Your task to perform on an android device: Open the calendar and show me this week's events Image 0: 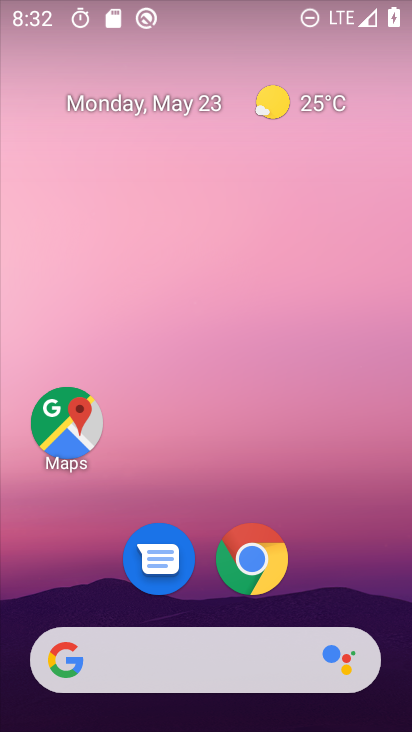
Step 0: drag from (377, 635) to (311, 4)
Your task to perform on an android device: Open the calendar and show me this week's events Image 1: 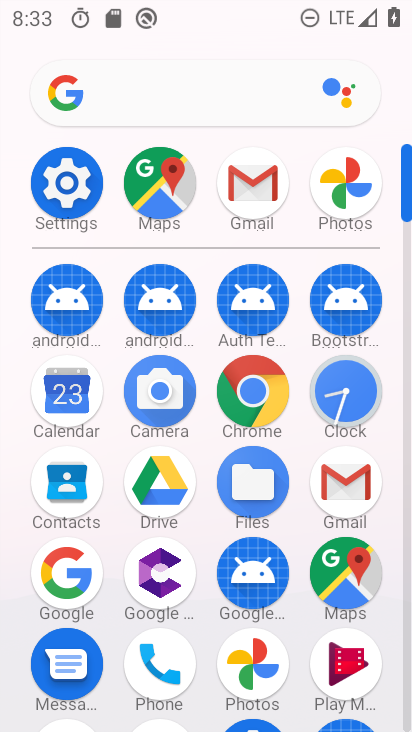
Step 1: click (62, 400)
Your task to perform on an android device: Open the calendar and show me this week's events Image 2: 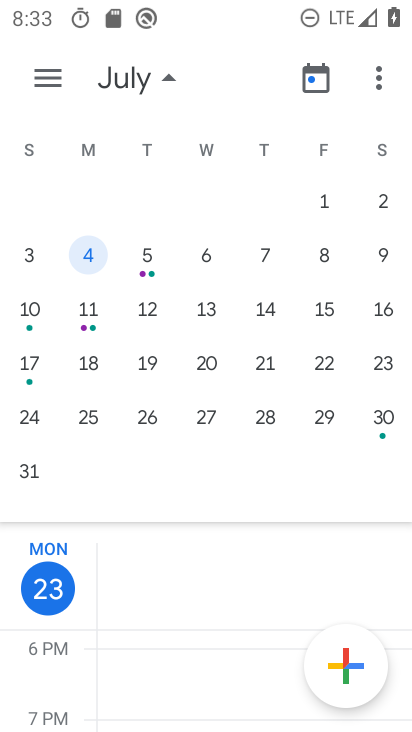
Step 2: task complete